Your task to perform on an android device: turn off wifi Image 0: 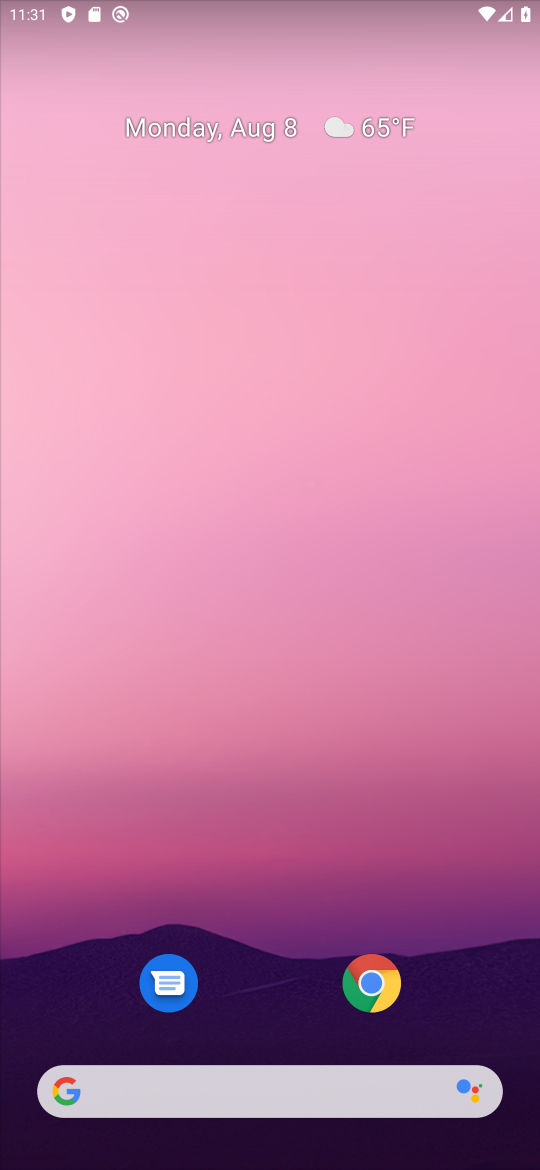
Step 0: drag from (285, 1059) to (220, 30)
Your task to perform on an android device: turn off wifi Image 1: 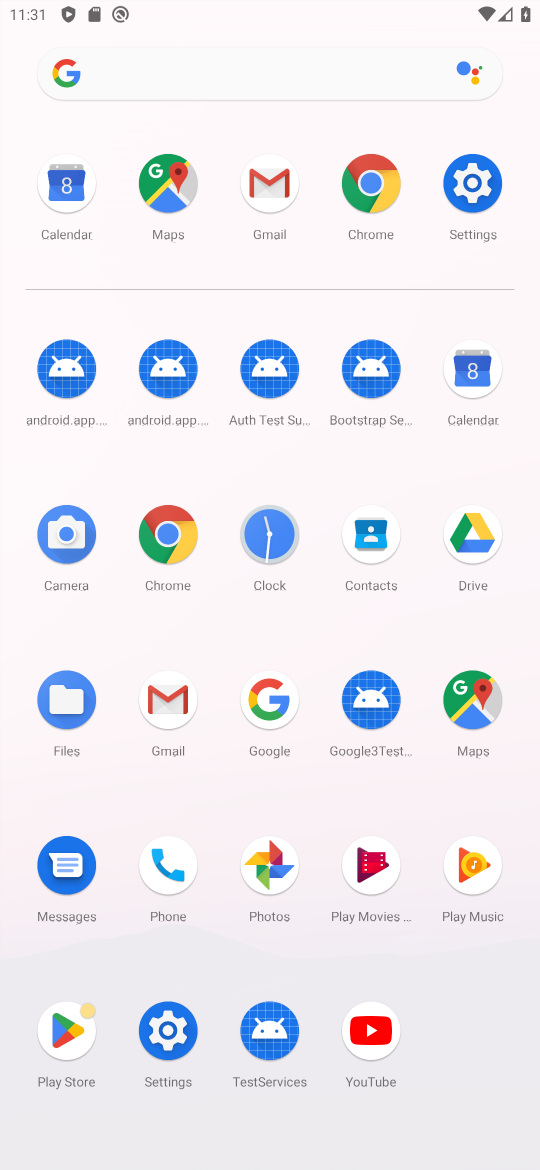
Step 1: click (470, 166)
Your task to perform on an android device: turn off wifi Image 2: 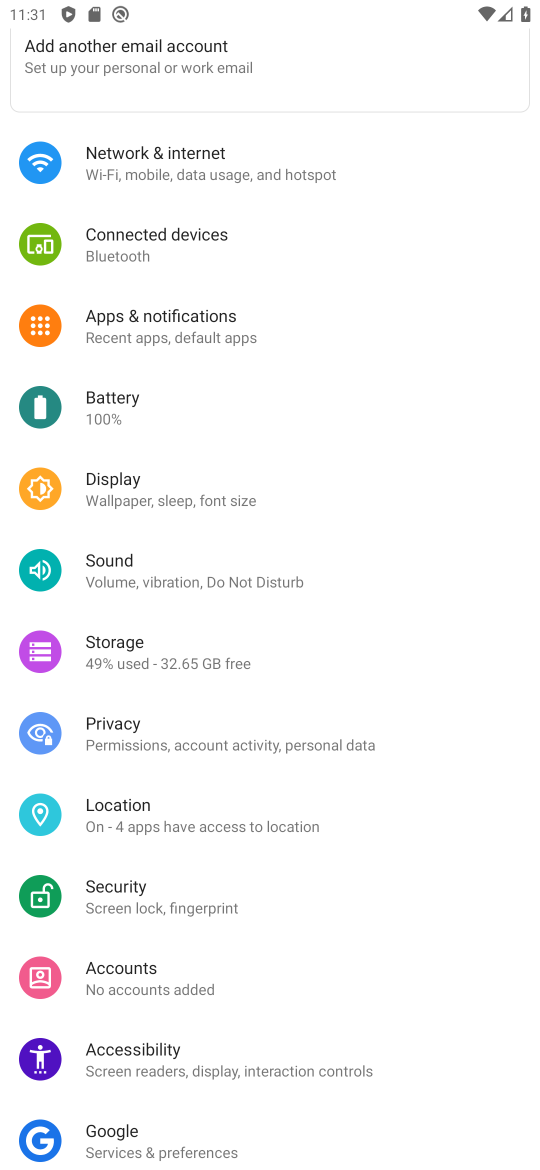
Step 2: click (242, 151)
Your task to perform on an android device: turn off wifi Image 3: 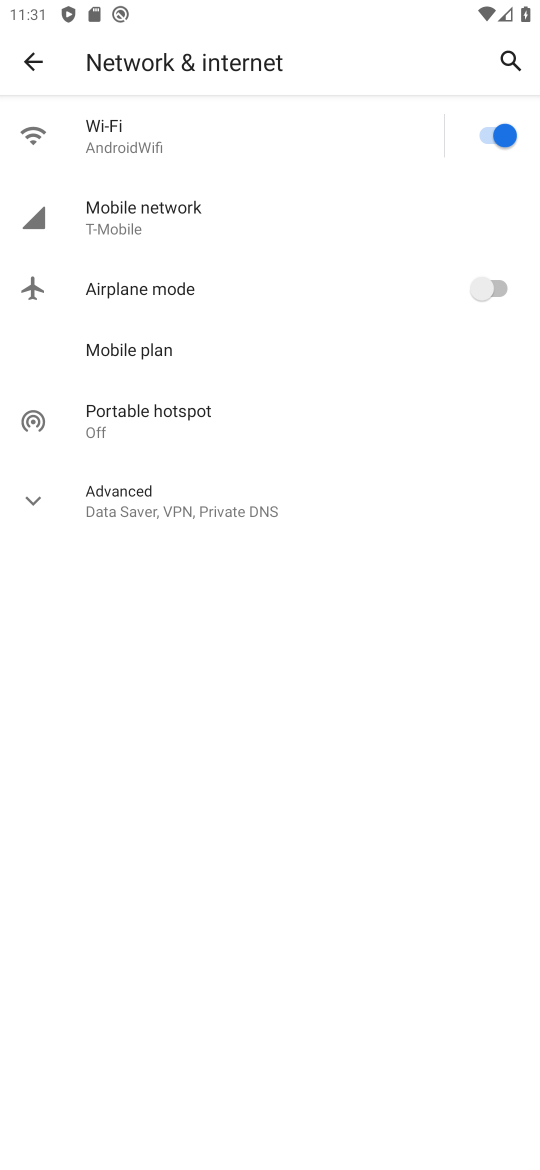
Step 3: click (231, 151)
Your task to perform on an android device: turn off wifi Image 4: 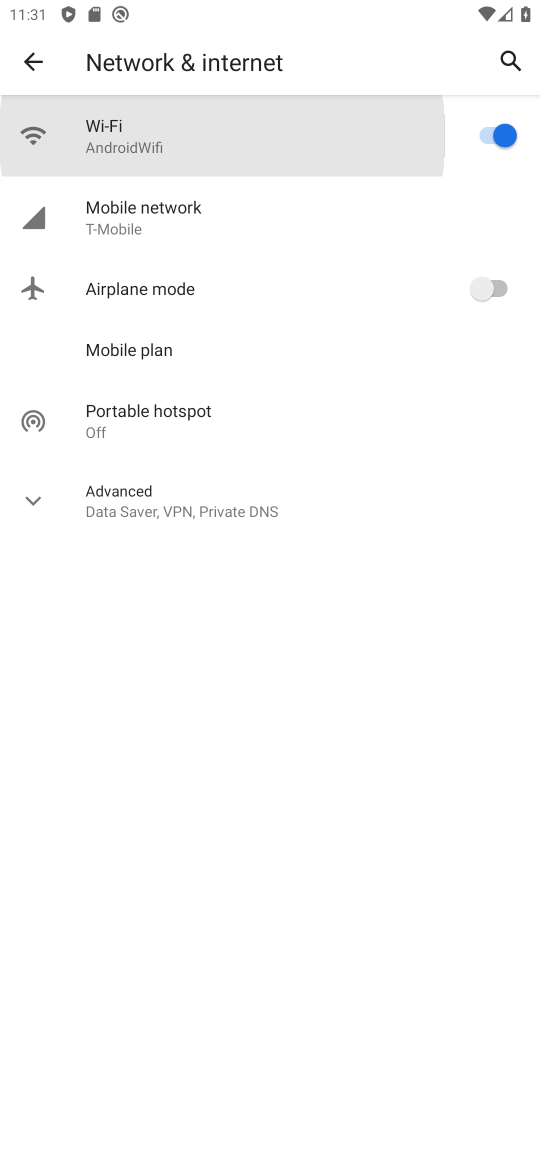
Step 4: task complete